Your task to perform on an android device: check android version Image 0: 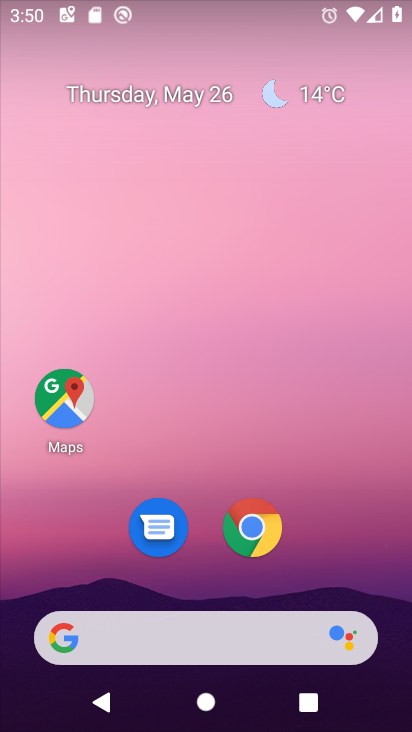
Step 0: drag from (371, 566) to (286, 101)
Your task to perform on an android device: check android version Image 1: 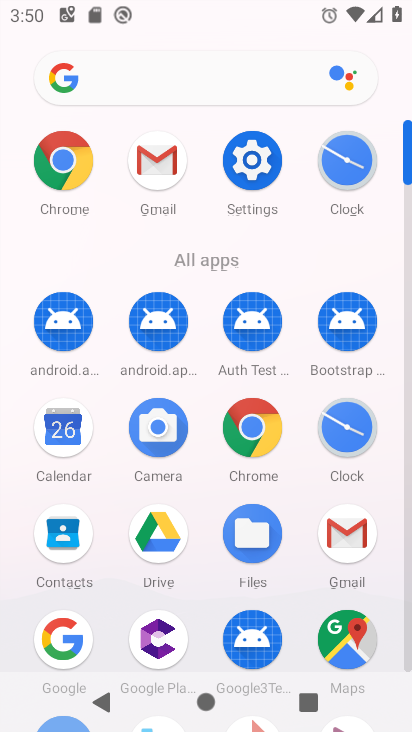
Step 1: click (263, 144)
Your task to perform on an android device: check android version Image 2: 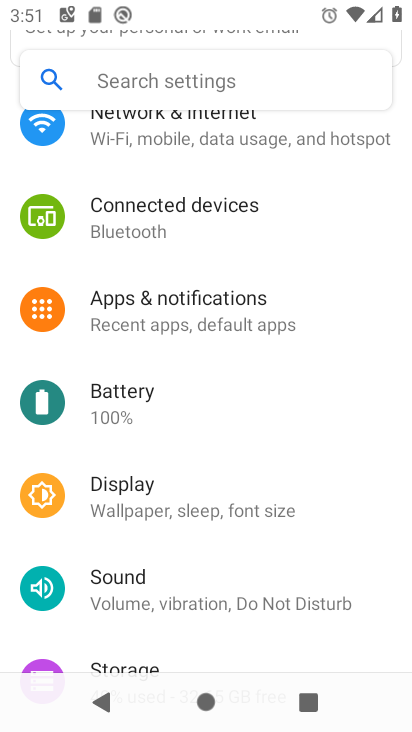
Step 2: drag from (209, 648) to (184, 100)
Your task to perform on an android device: check android version Image 3: 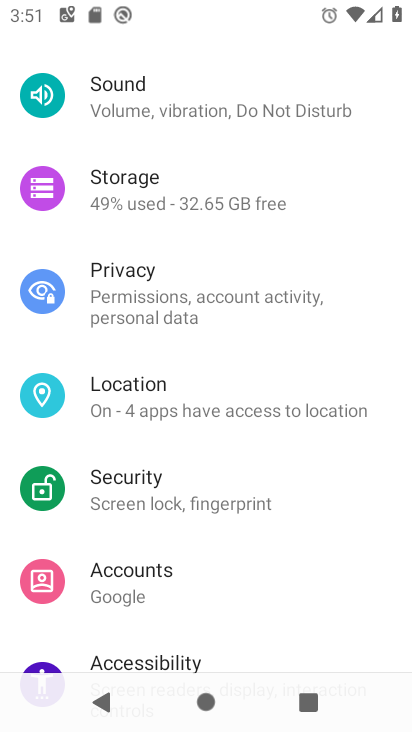
Step 3: drag from (200, 611) to (191, 226)
Your task to perform on an android device: check android version Image 4: 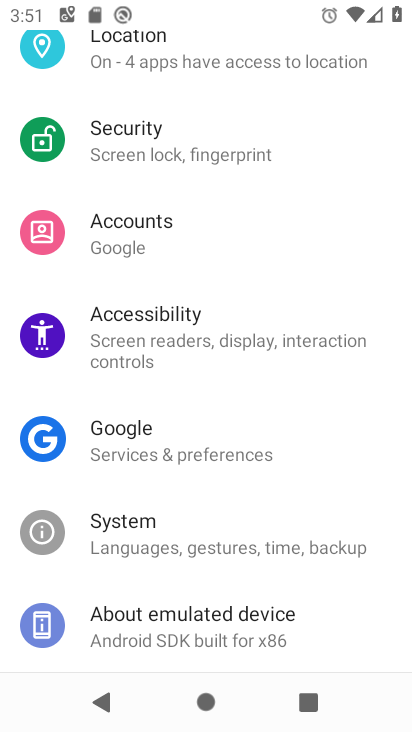
Step 4: click (194, 645)
Your task to perform on an android device: check android version Image 5: 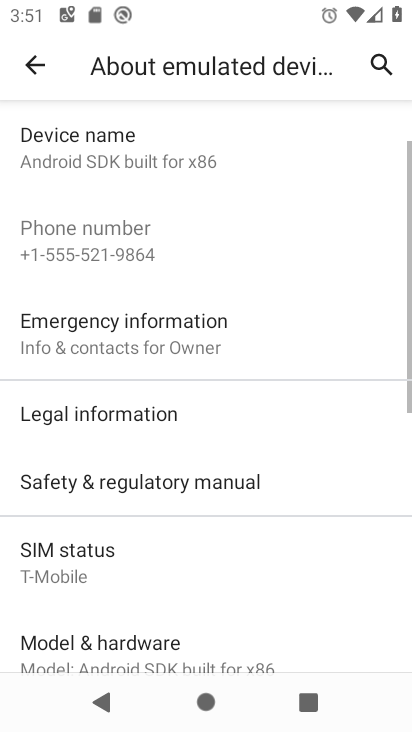
Step 5: drag from (228, 613) to (194, 92)
Your task to perform on an android device: check android version Image 6: 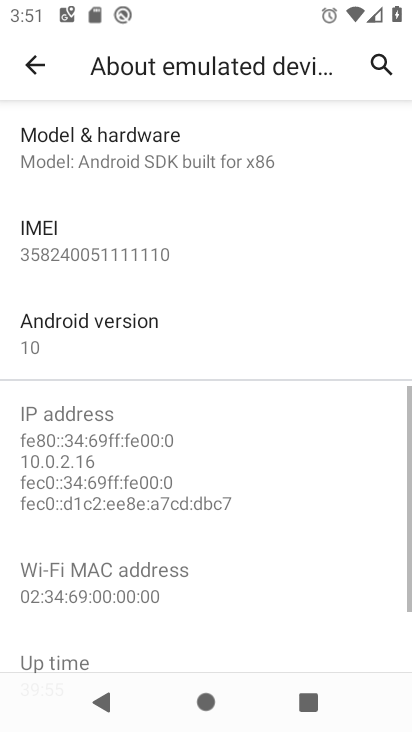
Step 6: drag from (160, 640) to (157, 373)
Your task to perform on an android device: check android version Image 7: 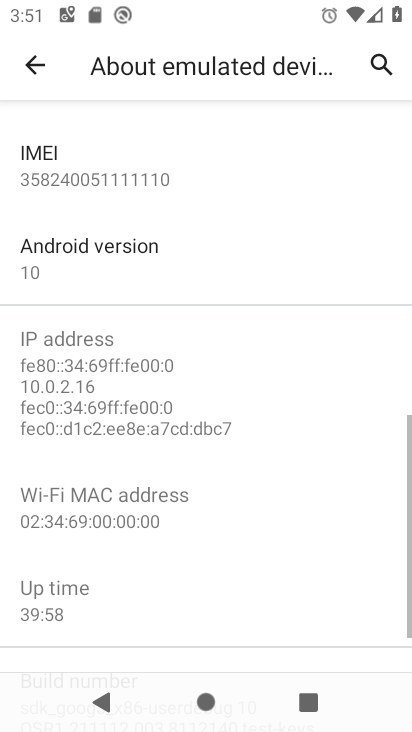
Step 7: click (149, 290)
Your task to perform on an android device: check android version Image 8: 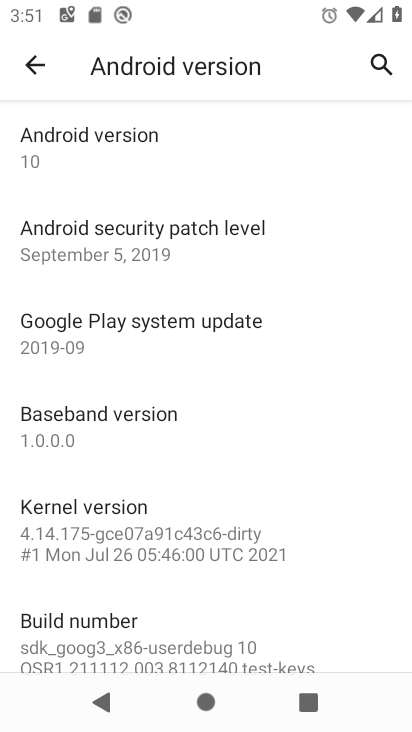
Step 8: task complete